Your task to perform on an android device: Go to location settings Image 0: 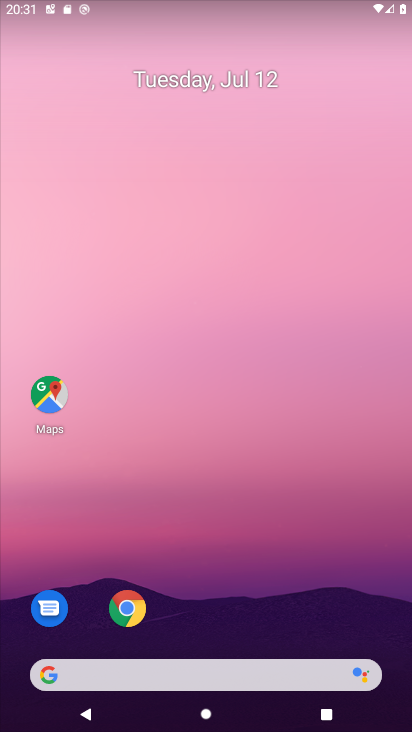
Step 0: drag from (237, 595) to (345, 153)
Your task to perform on an android device: Go to location settings Image 1: 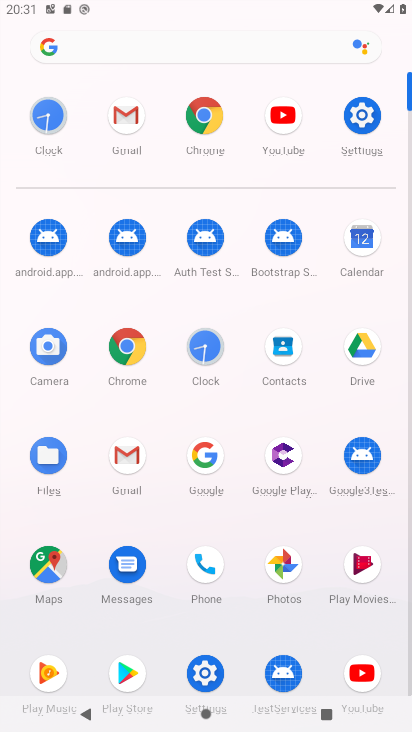
Step 1: click (369, 121)
Your task to perform on an android device: Go to location settings Image 2: 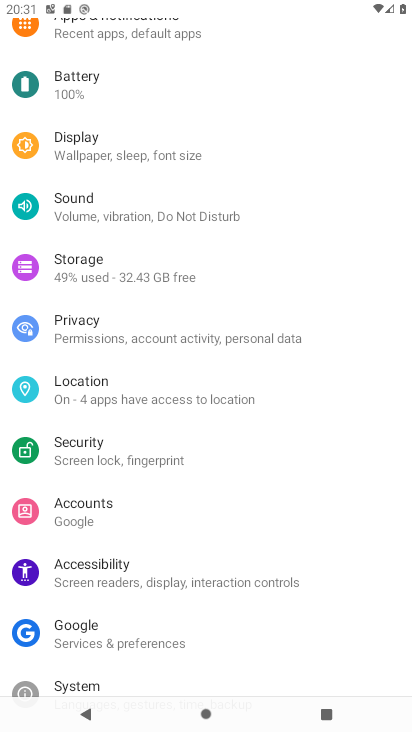
Step 2: click (80, 391)
Your task to perform on an android device: Go to location settings Image 3: 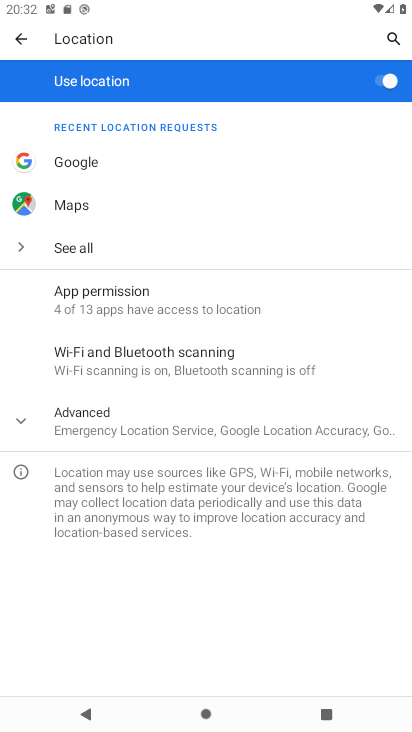
Step 3: click (114, 410)
Your task to perform on an android device: Go to location settings Image 4: 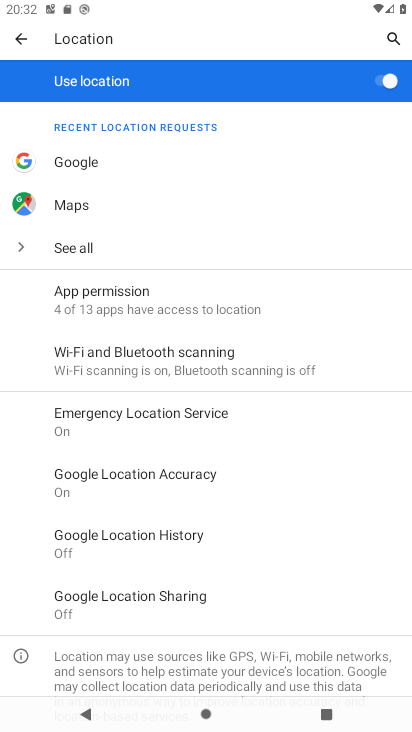
Step 4: task complete